Your task to perform on an android device: turn on showing notifications on the lock screen Image 0: 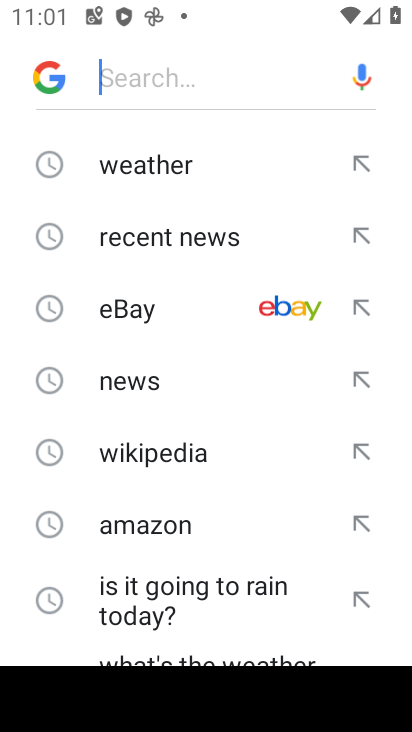
Step 0: press home button
Your task to perform on an android device: turn on showing notifications on the lock screen Image 1: 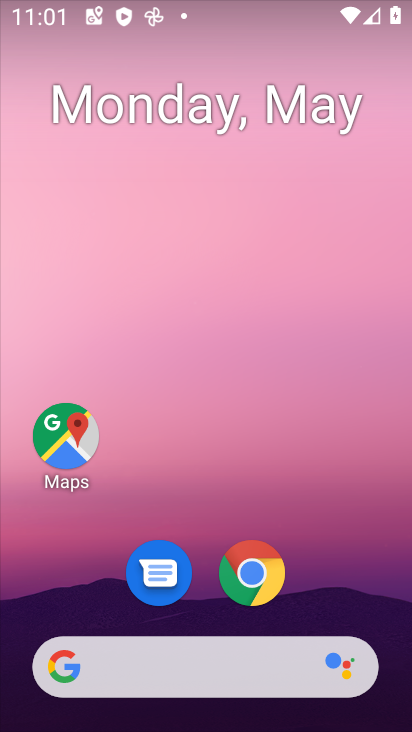
Step 1: drag from (332, 581) to (206, 60)
Your task to perform on an android device: turn on showing notifications on the lock screen Image 2: 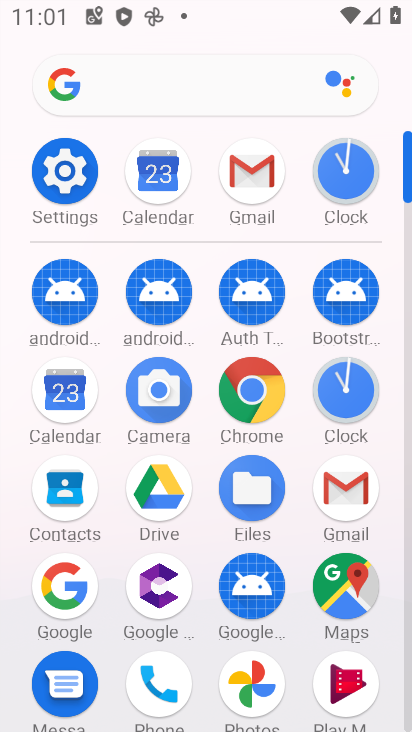
Step 2: click (76, 189)
Your task to perform on an android device: turn on showing notifications on the lock screen Image 3: 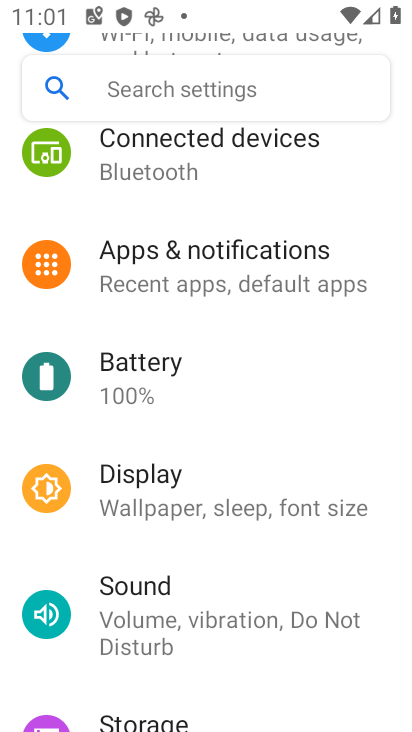
Step 3: drag from (252, 263) to (302, 521)
Your task to perform on an android device: turn on showing notifications on the lock screen Image 4: 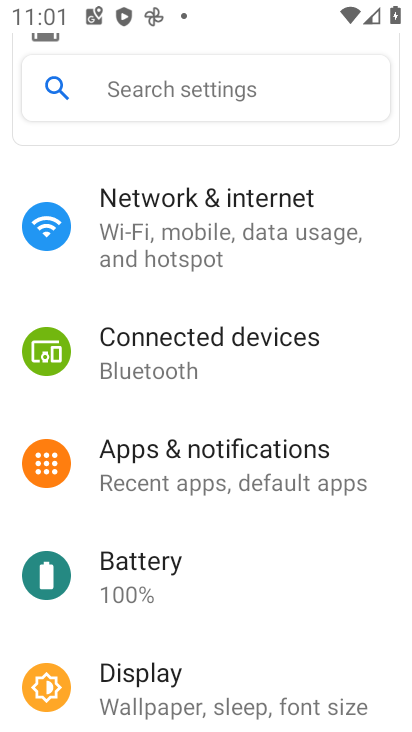
Step 4: click (200, 502)
Your task to perform on an android device: turn on showing notifications on the lock screen Image 5: 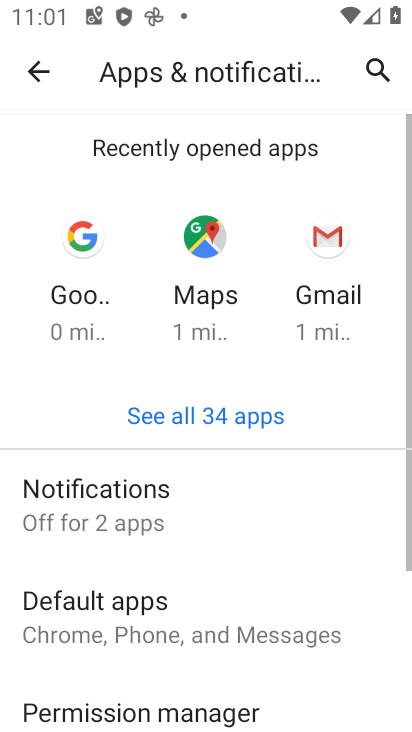
Step 5: drag from (205, 587) to (204, 323)
Your task to perform on an android device: turn on showing notifications on the lock screen Image 6: 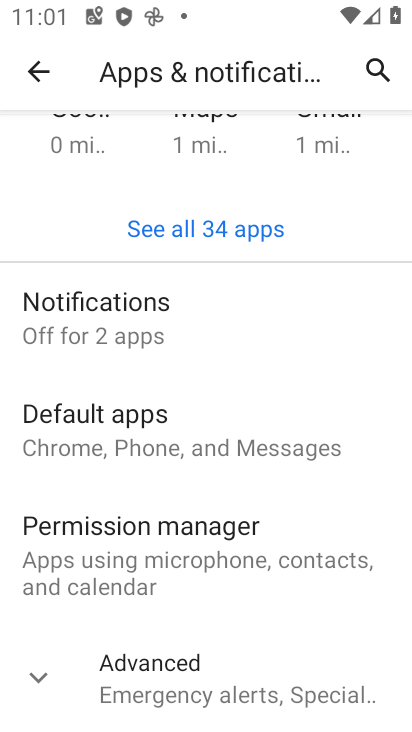
Step 6: click (237, 346)
Your task to perform on an android device: turn on showing notifications on the lock screen Image 7: 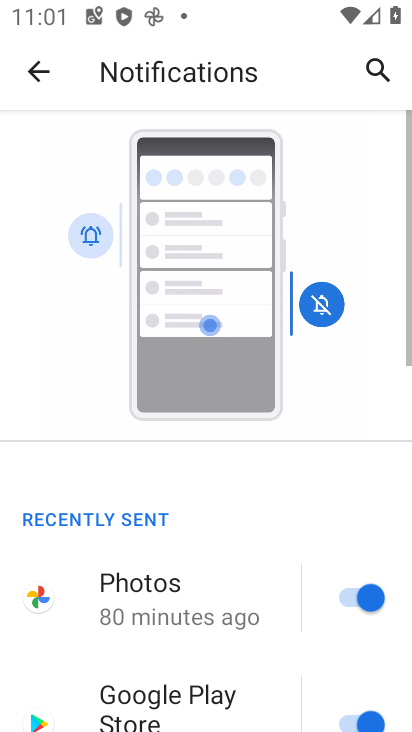
Step 7: drag from (212, 656) to (265, 185)
Your task to perform on an android device: turn on showing notifications on the lock screen Image 8: 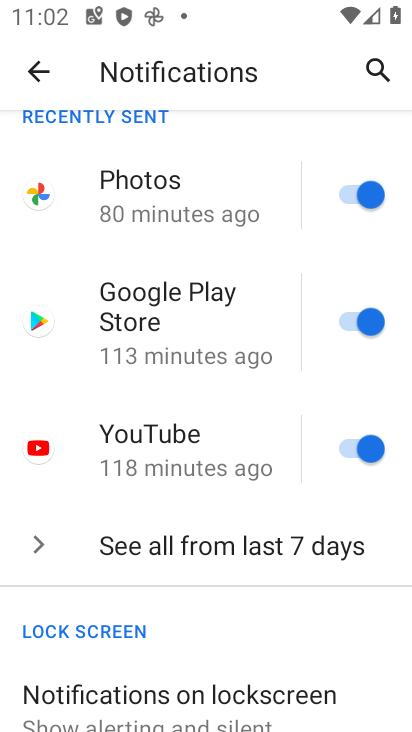
Step 8: drag from (239, 653) to (231, 367)
Your task to perform on an android device: turn on showing notifications on the lock screen Image 9: 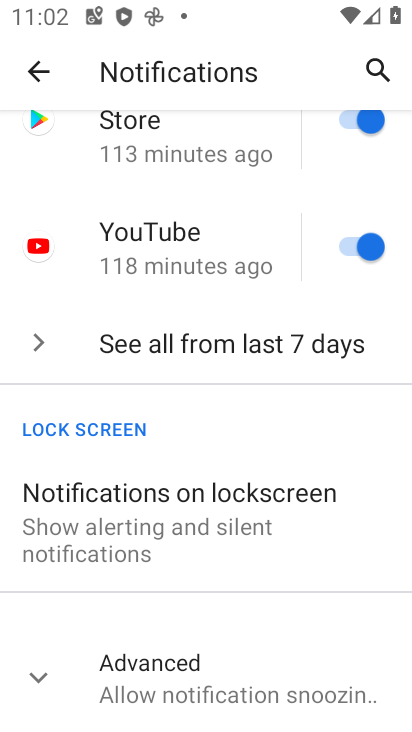
Step 9: click (191, 540)
Your task to perform on an android device: turn on showing notifications on the lock screen Image 10: 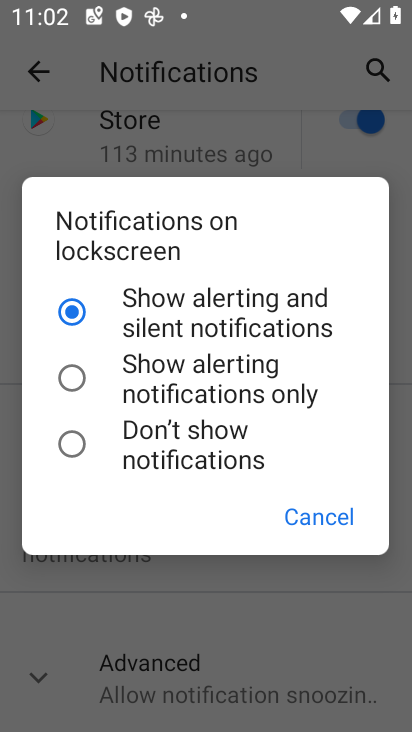
Step 10: click (171, 403)
Your task to perform on an android device: turn on showing notifications on the lock screen Image 11: 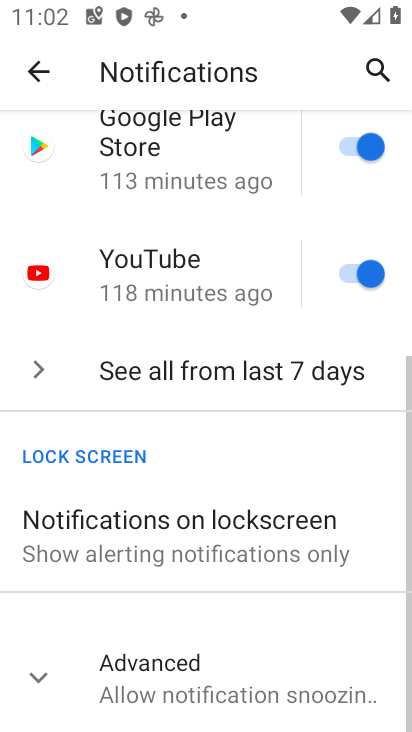
Step 11: task complete